Your task to perform on an android device: turn off javascript in the chrome app Image 0: 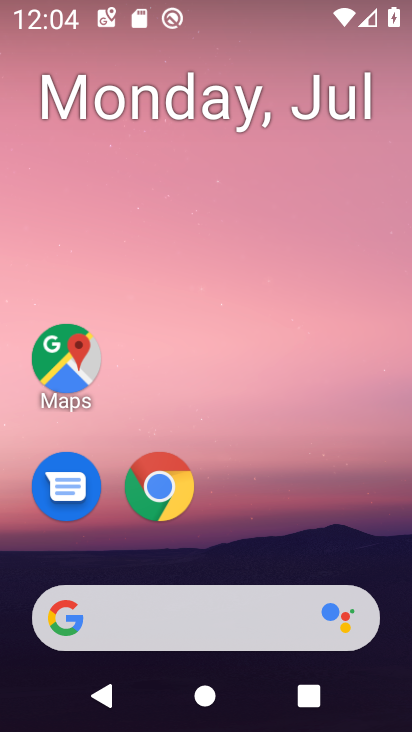
Step 0: press home button
Your task to perform on an android device: turn off javascript in the chrome app Image 1: 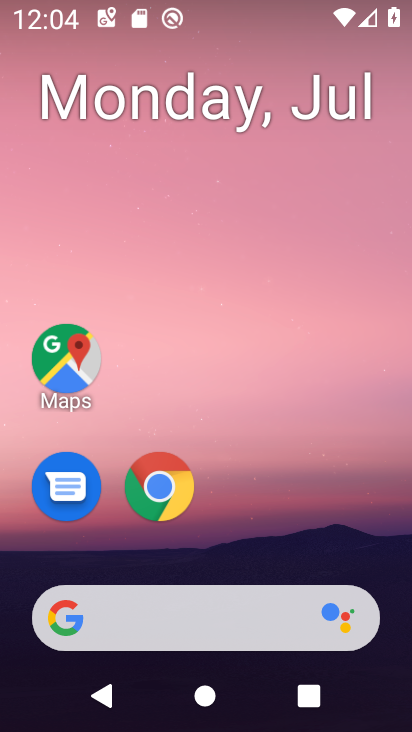
Step 1: drag from (364, 529) to (363, 52)
Your task to perform on an android device: turn off javascript in the chrome app Image 2: 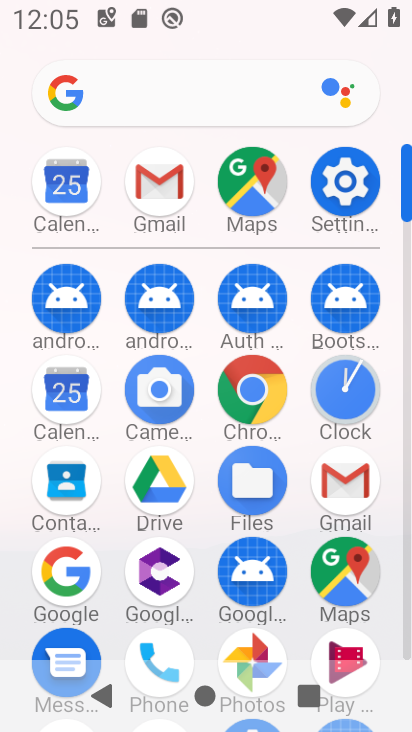
Step 2: click (260, 398)
Your task to perform on an android device: turn off javascript in the chrome app Image 3: 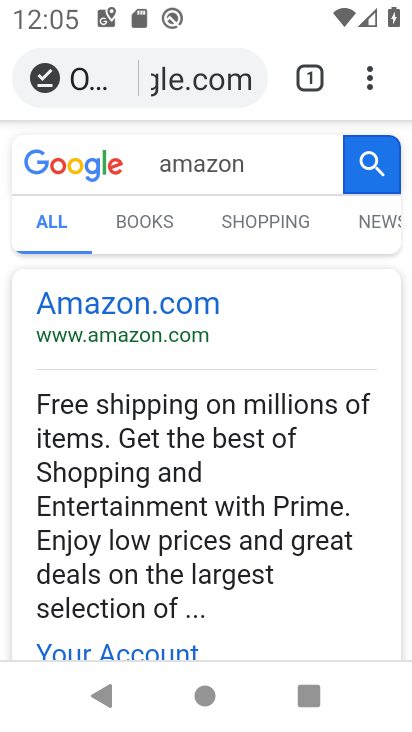
Step 3: click (366, 86)
Your task to perform on an android device: turn off javascript in the chrome app Image 4: 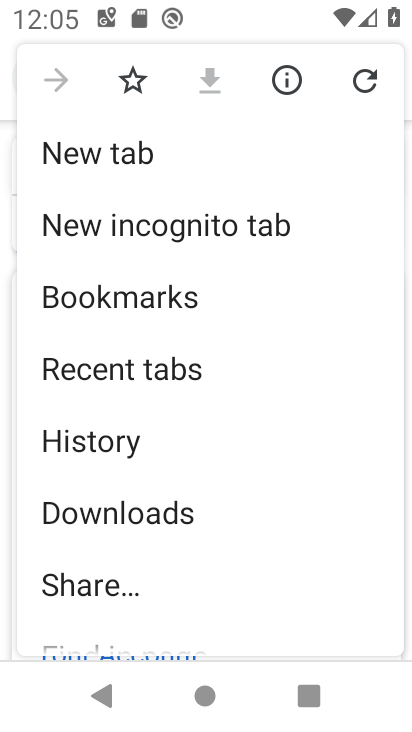
Step 4: drag from (292, 390) to (297, 329)
Your task to perform on an android device: turn off javascript in the chrome app Image 5: 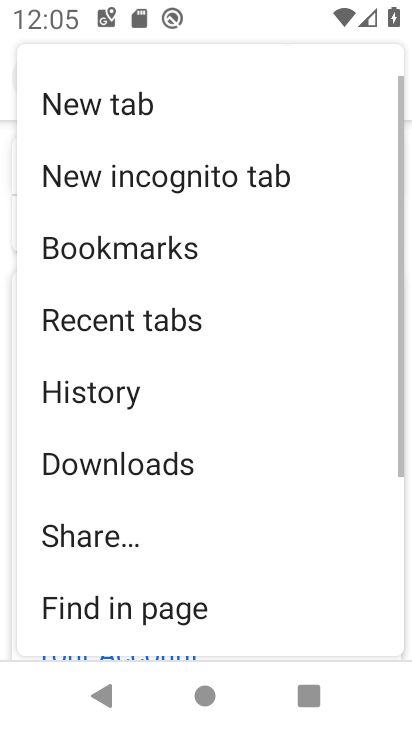
Step 5: drag from (293, 421) to (303, 342)
Your task to perform on an android device: turn off javascript in the chrome app Image 6: 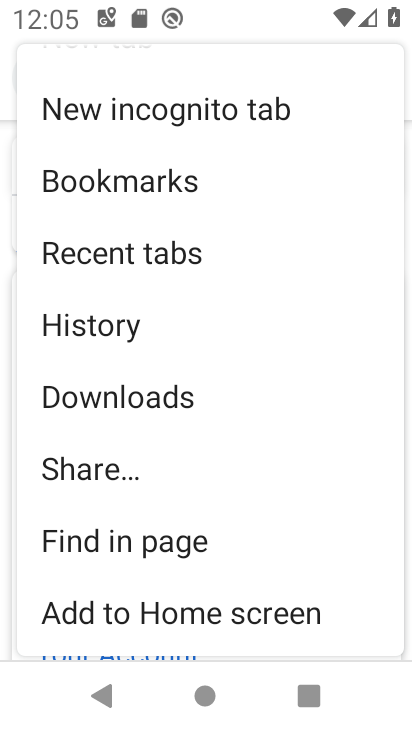
Step 6: drag from (298, 426) to (299, 340)
Your task to perform on an android device: turn off javascript in the chrome app Image 7: 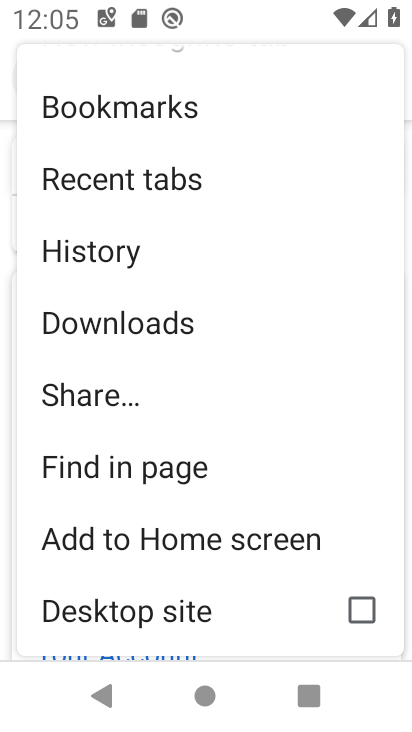
Step 7: drag from (334, 490) to (337, 385)
Your task to perform on an android device: turn off javascript in the chrome app Image 8: 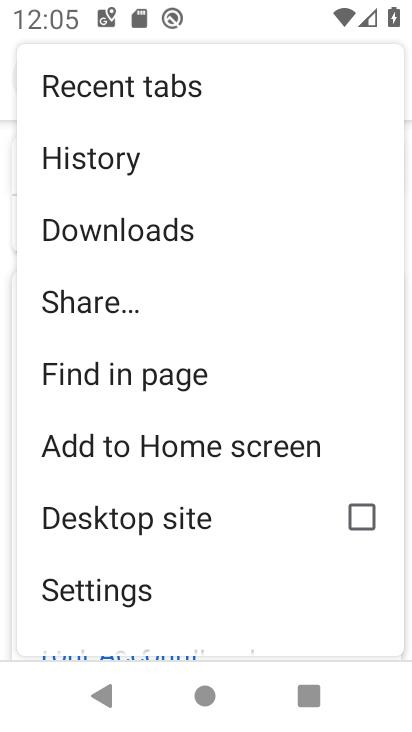
Step 8: drag from (274, 590) to (279, 482)
Your task to perform on an android device: turn off javascript in the chrome app Image 9: 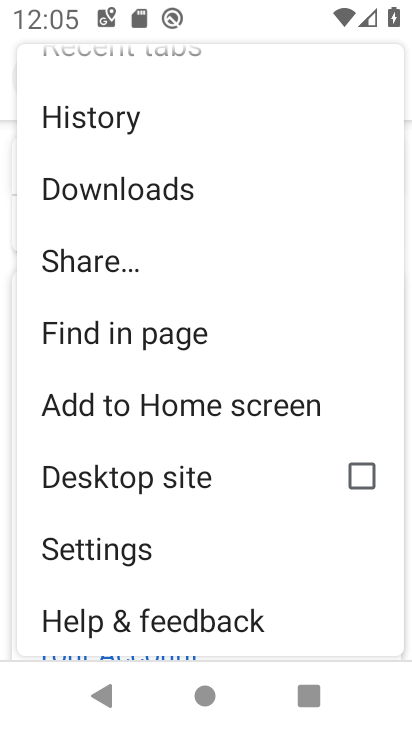
Step 9: click (220, 562)
Your task to perform on an android device: turn off javascript in the chrome app Image 10: 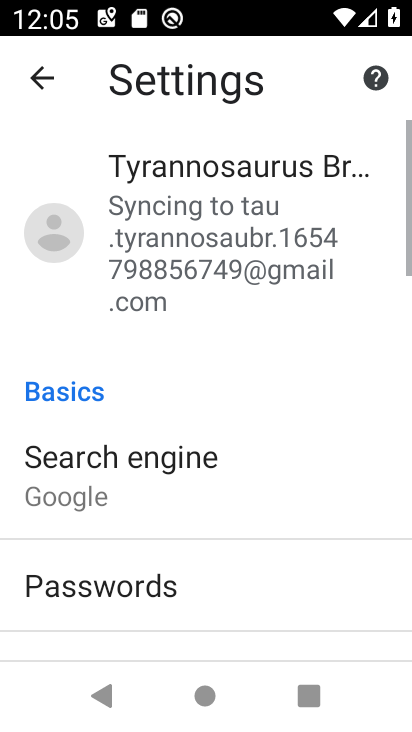
Step 10: drag from (307, 552) to (317, 415)
Your task to perform on an android device: turn off javascript in the chrome app Image 11: 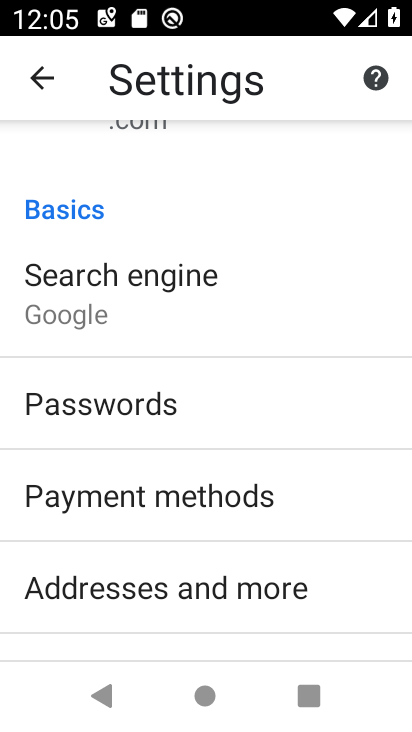
Step 11: drag from (339, 518) to (342, 423)
Your task to perform on an android device: turn off javascript in the chrome app Image 12: 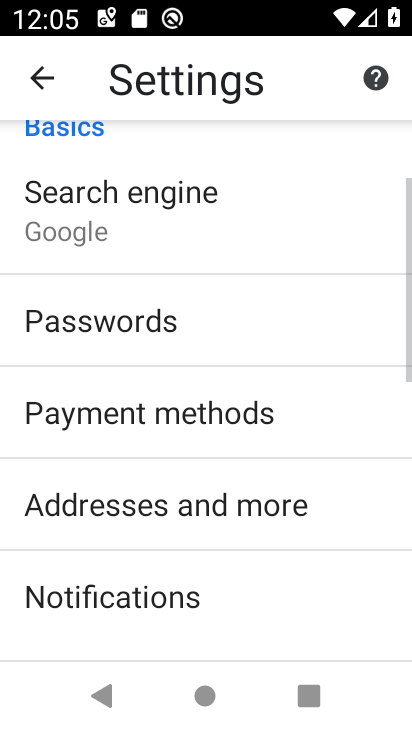
Step 12: drag from (325, 582) to (329, 443)
Your task to perform on an android device: turn off javascript in the chrome app Image 13: 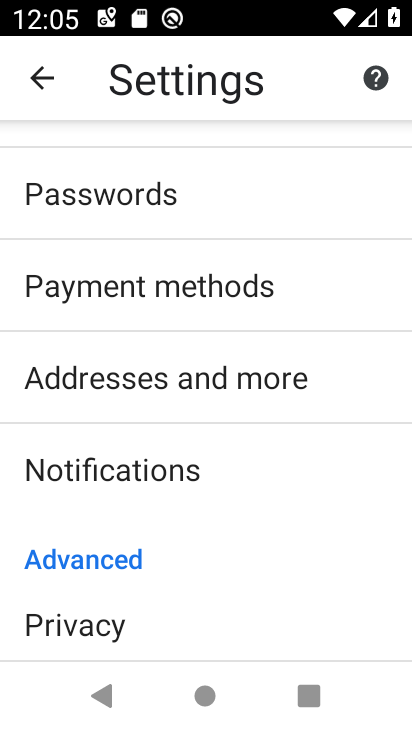
Step 13: drag from (293, 588) to (307, 478)
Your task to perform on an android device: turn off javascript in the chrome app Image 14: 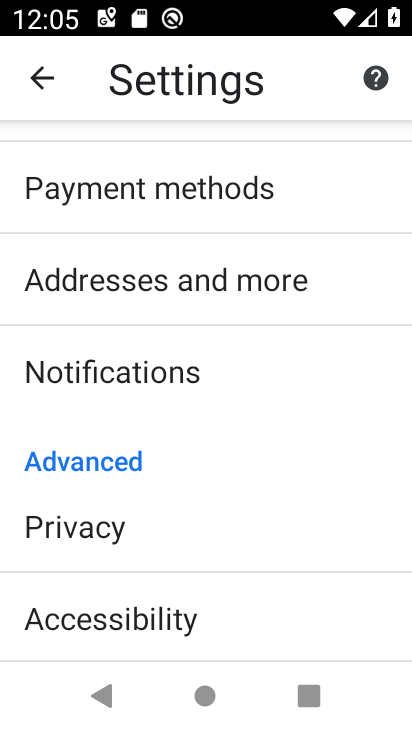
Step 14: drag from (301, 567) to (305, 468)
Your task to perform on an android device: turn off javascript in the chrome app Image 15: 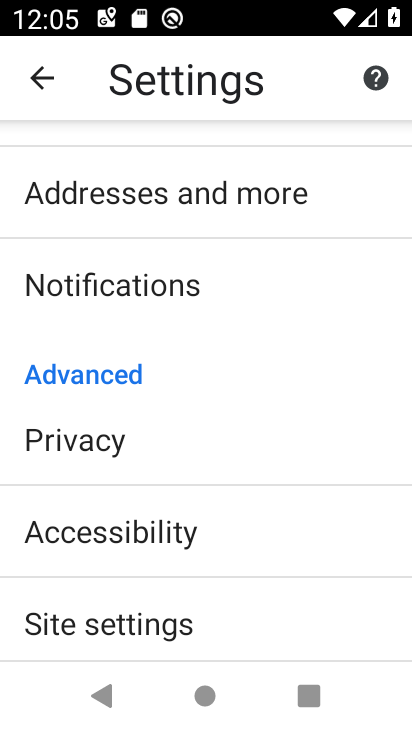
Step 15: click (297, 622)
Your task to perform on an android device: turn off javascript in the chrome app Image 16: 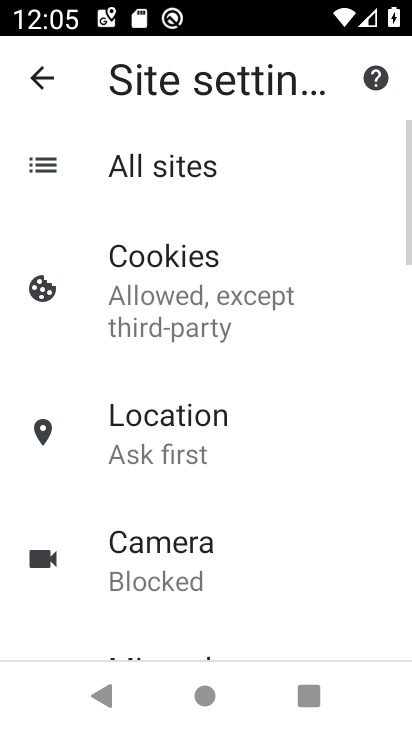
Step 16: drag from (318, 550) to (327, 451)
Your task to perform on an android device: turn off javascript in the chrome app Image 17: 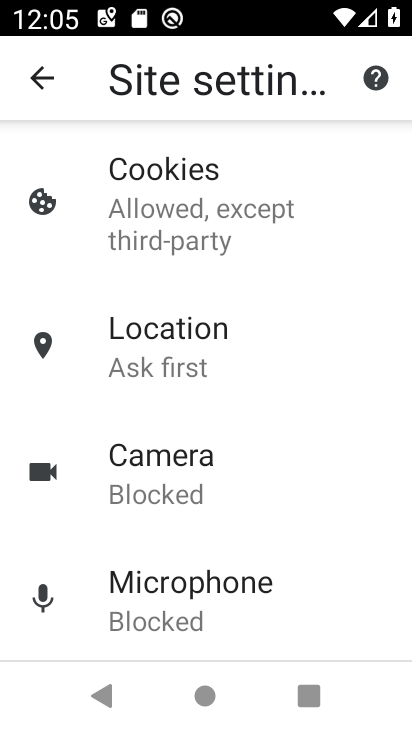
Step 17: drag from (364, 592) to (356, 448)
Your task to perform on an android device: turn off javascript in the chrome app Image 18: 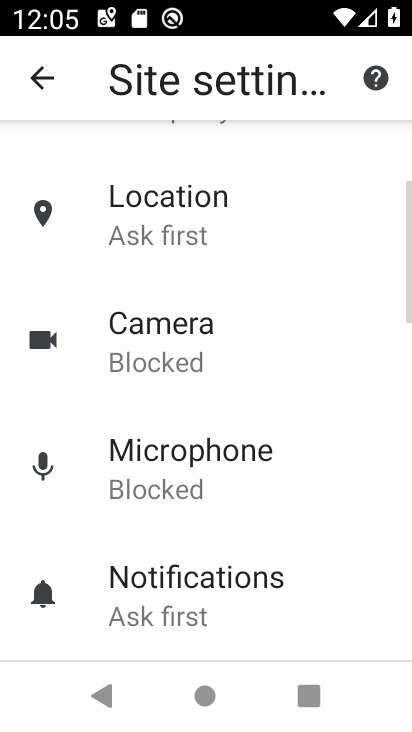
Step 18: drag from (337, 615) to (335, 468)
Your task to perform on an android device: turn off javascript in the chrome app Image 19: 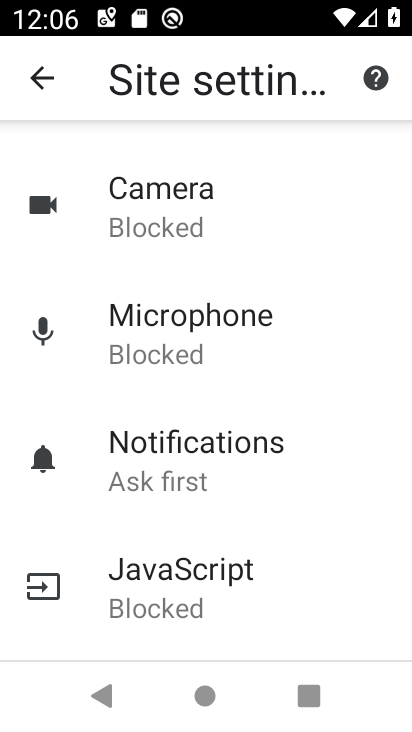
Step 19: drag from (314, 620) to (315, 521)
Your task to perform on an android device: turn off javascript in the chrome app Image 20: 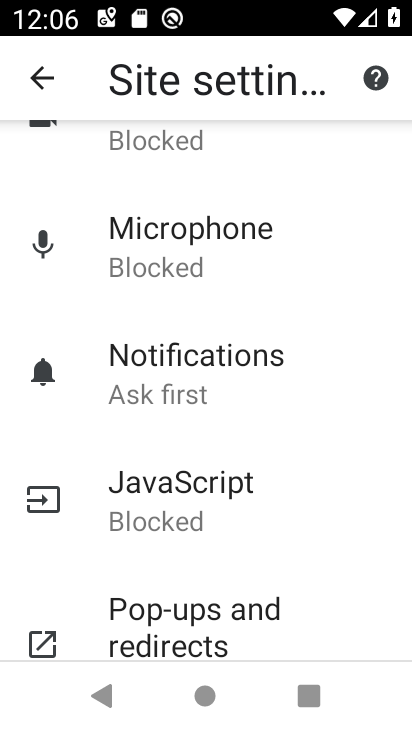
Step 20: click (286, 512)
Your task to perform on an android device: turn off javascript in the chrome app Image 21: 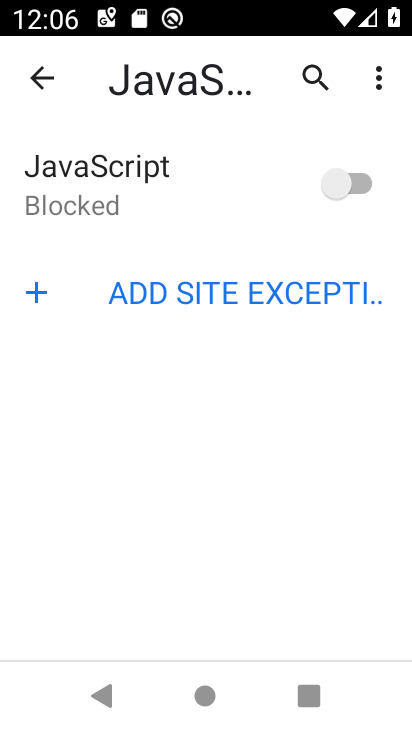
Step 21: task complete